Your task to perform on an android device: Show me recent news Image 0: 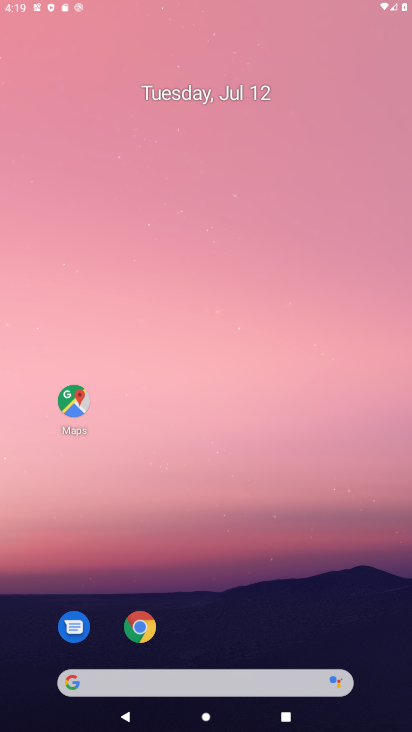
Step 0: press home button
Your task to perform on an android device: Show me recent news Image 1: 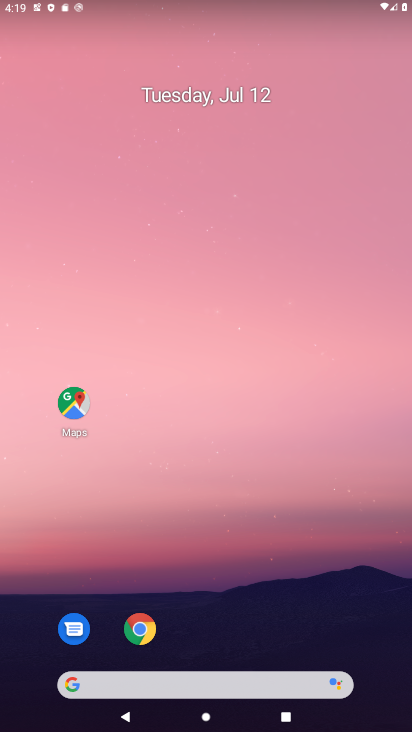
Step 1: click (67, 691)
Your task to perform on an android device: Show me recent news Image 2: 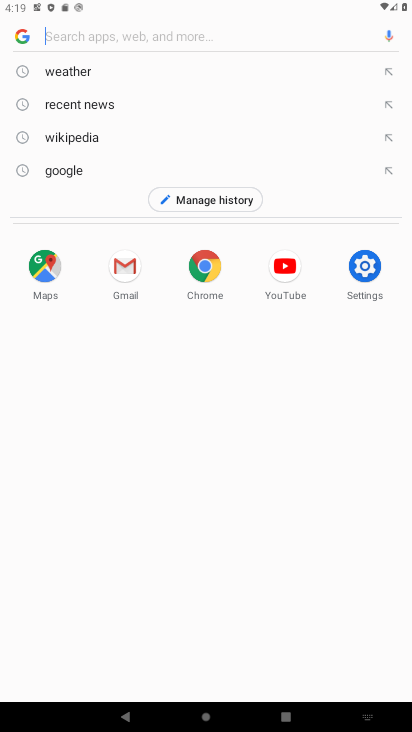
Step 2: click (73, 105)
Your task to perform on an android device: Show me recent news Image 3: 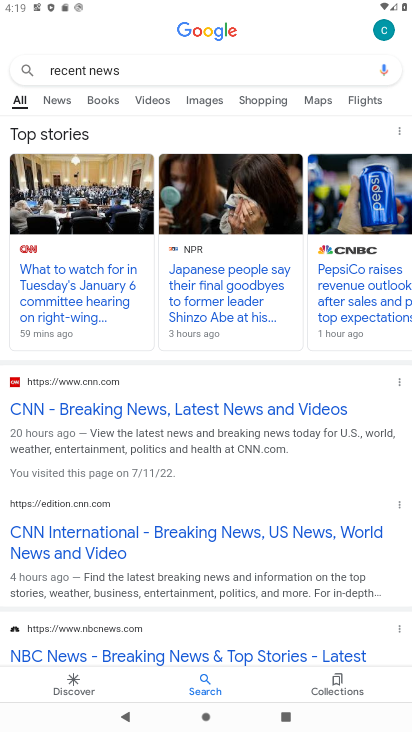
Step 3: task complete